Your task to perform on an android device: When is my next appointment? Image 0: 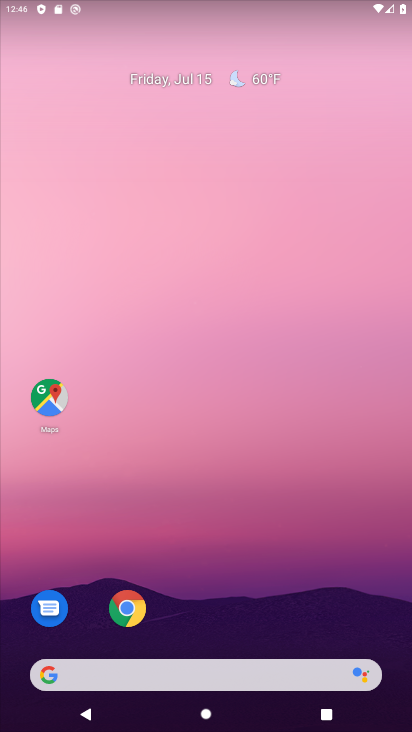
Step 0: drag from (337, 615) to (297, 6)
Your task to perform on an android device: When is my next appointment? Image 1: 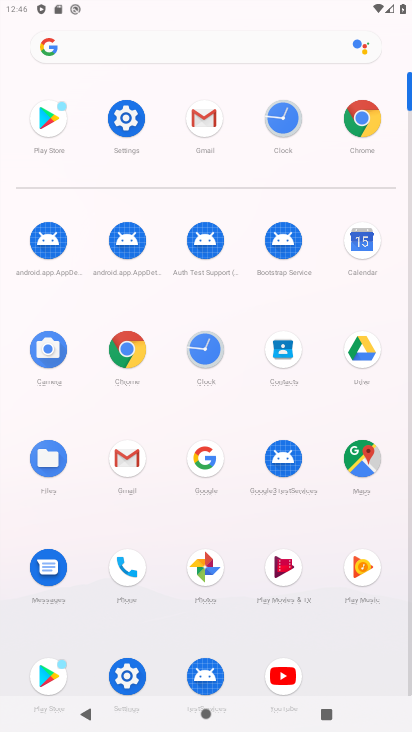
Step 1: click (343, 241)
Your task to perform on an android device: When is my next appointment? Image 2: 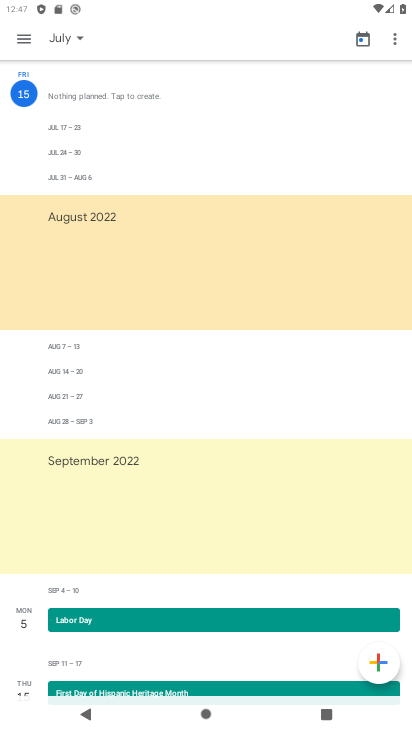
Step 2: task complete